Your task to perform on an android device: Go to calendar. Show me events next week Image 0: 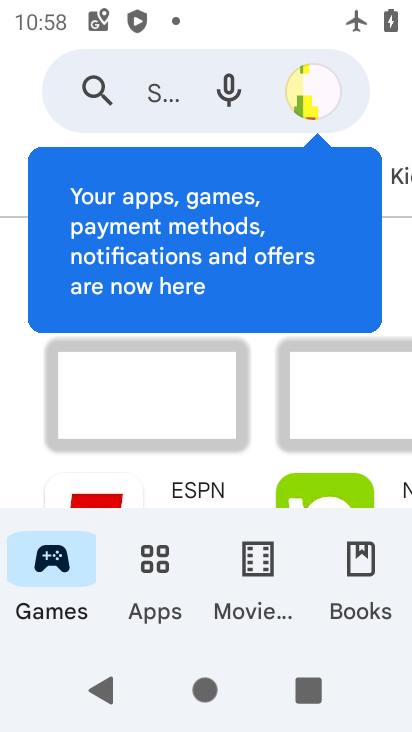
Step 0: press home button
Your task to perform on an android device: Go to calendar. Show me events next week Image 1: 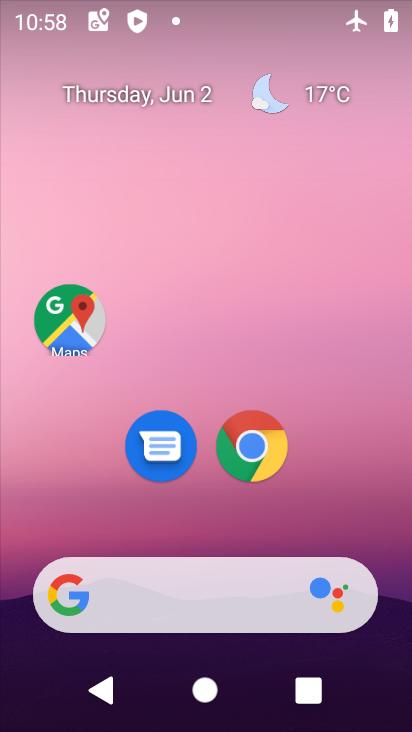
Step 1: drag from (375, 543) to (383, 192)
Your task to perform on an android device: Go to calendar. Show me events next week Image 2: 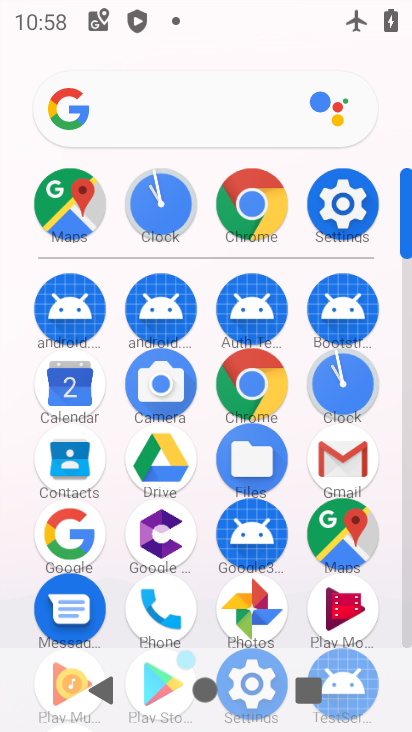
Step 2: click (77, 391)
Your task to perform on an android device: Go to calendar. Show me events next week Image 3: 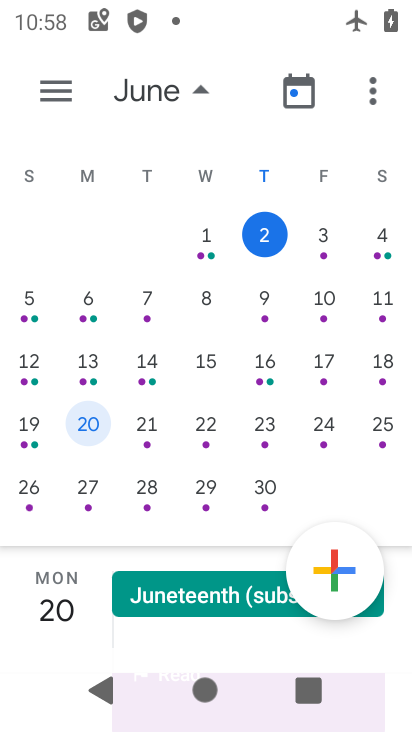
Step 3: click (92, 302)
Your task to perform on an android device: Go to calendar. Show me events next week Image 4: 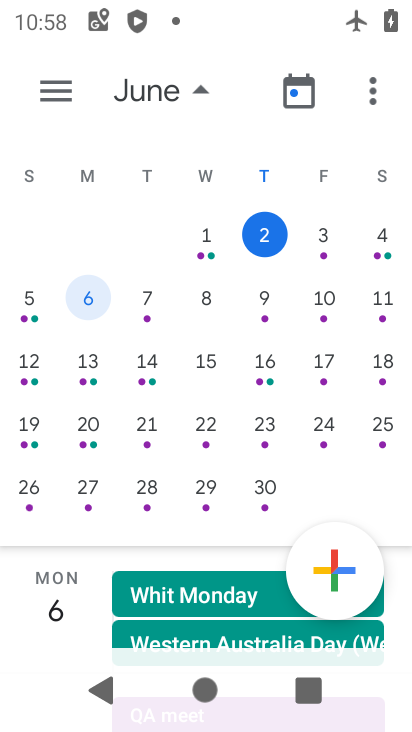
Step 4: drag from (170, 523) to (182, 221)
Your task to perform on an android device: Go to calendar. Show me events next week Image 5: 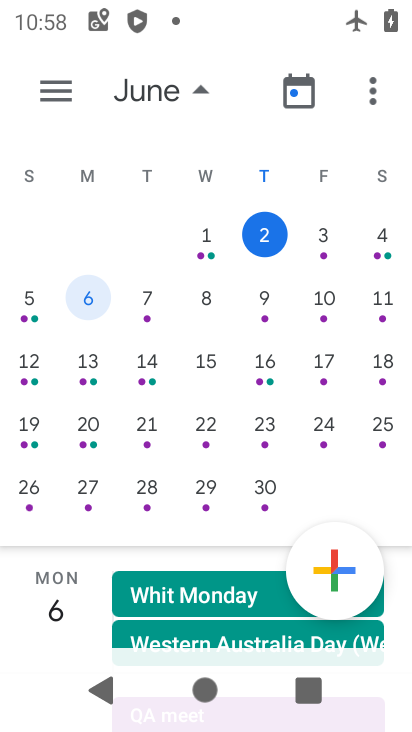
Step 5: drag from (184, 595) to (236, 136)
Your task to perform on an android device: Go to calendar. Show me events next week Image 6: 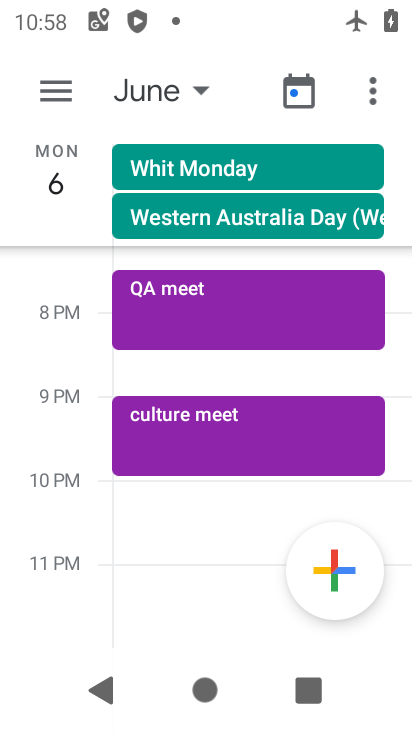
Step 6: click (215, 316)
Your task to perform on an android device: Go to calendar. Show me events next week Image 7: 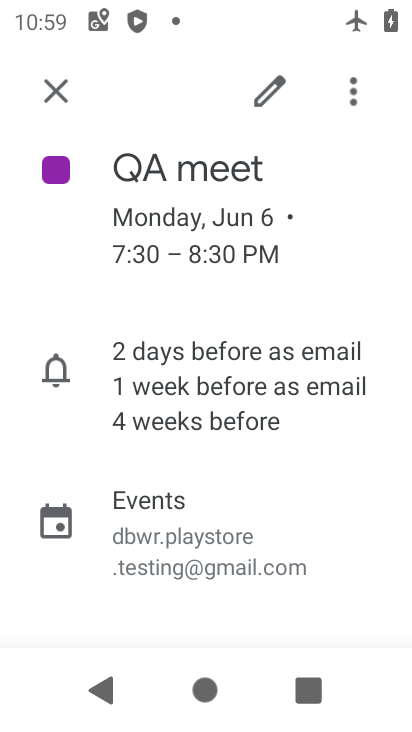
Step 7: task complete